Your task to perform on an android device: Open wifi settings Image 0: 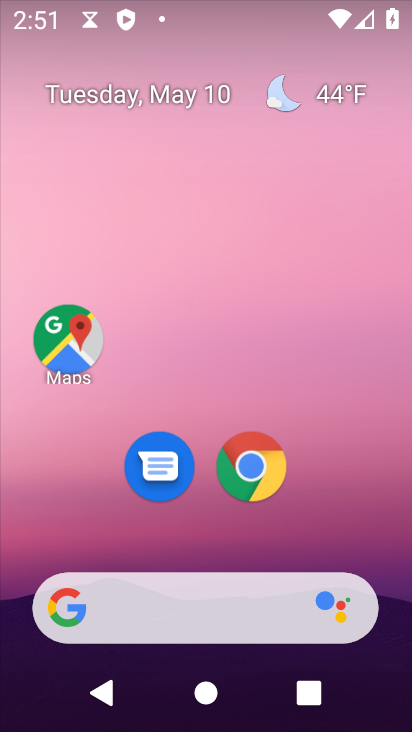
Step 0: drag from (335, 527) to (232, 13)
Your task to perform on an android device: Open wifi settings Image 1: 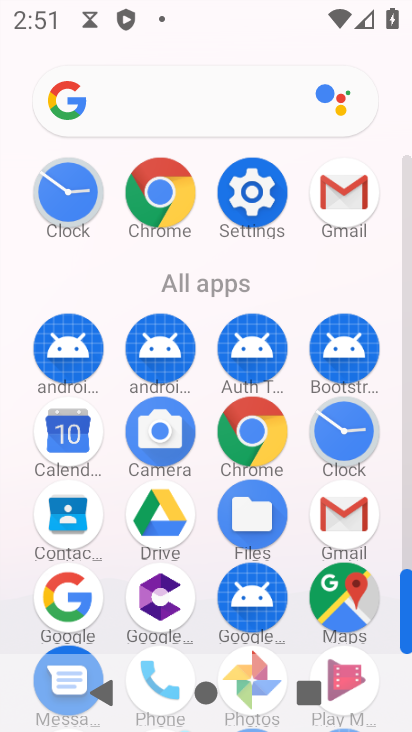
Step 1: click (249, 188)
Your task to perform on an android device: Open wifi settings Image 2: 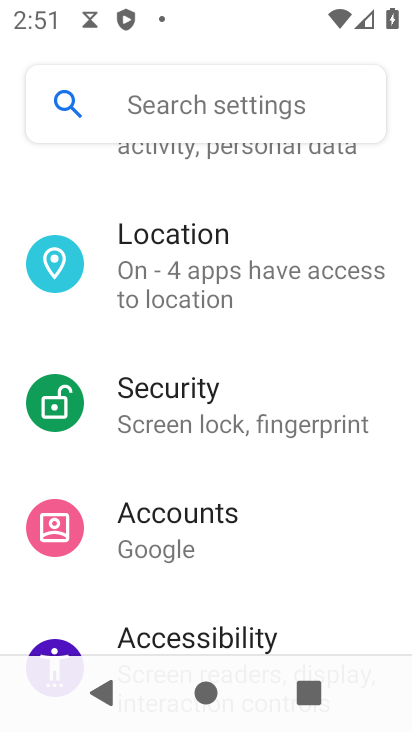
Step 2: drag from (249, 187) to (261, 339)
Your task to perform on an android device: Open wifi settings Image 3: 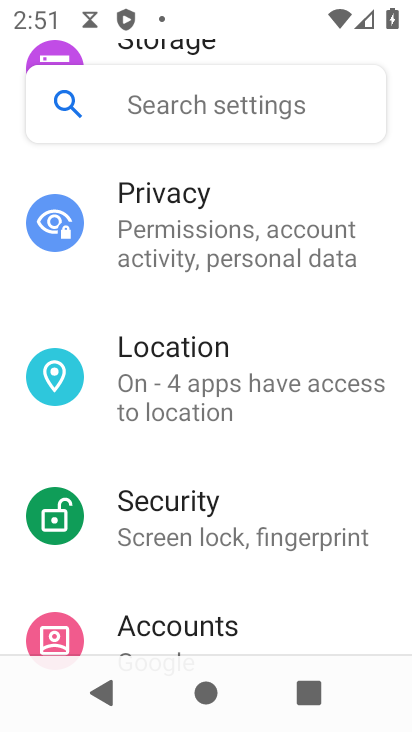
Step 3: drag from (239, 184) to (285, 381)
Your task to perform on an android device: Open wifi settings Image 4: 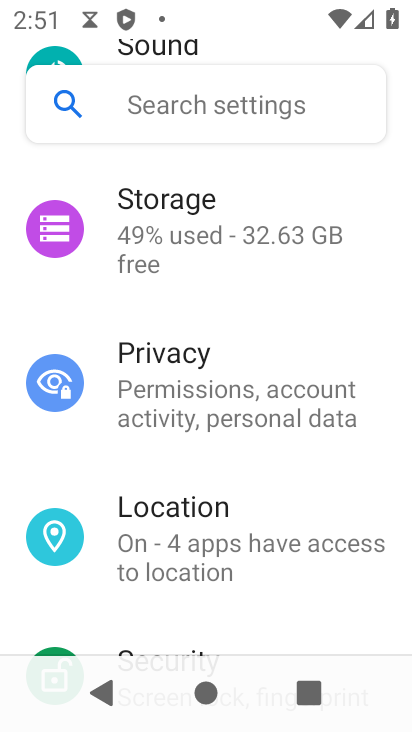
Step 4: drag from (225, 271) to (235, 466)
Your task to perform on an android device: Open wifi settings Image 5: 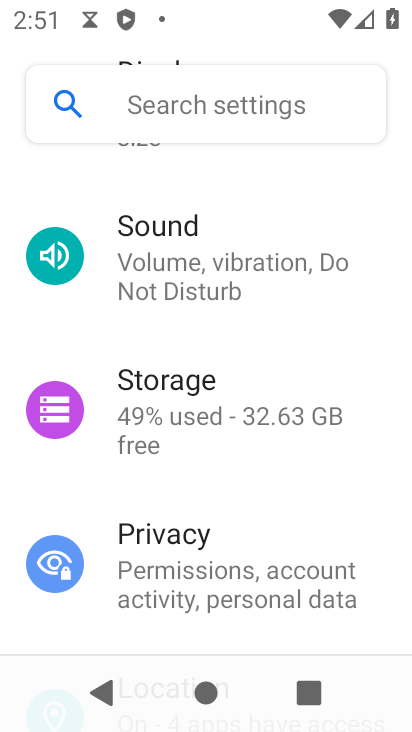
Step 5: drag from (228, 318) to (239, 489)
Your task to perform on an android device: Open wifi settings Image 6: 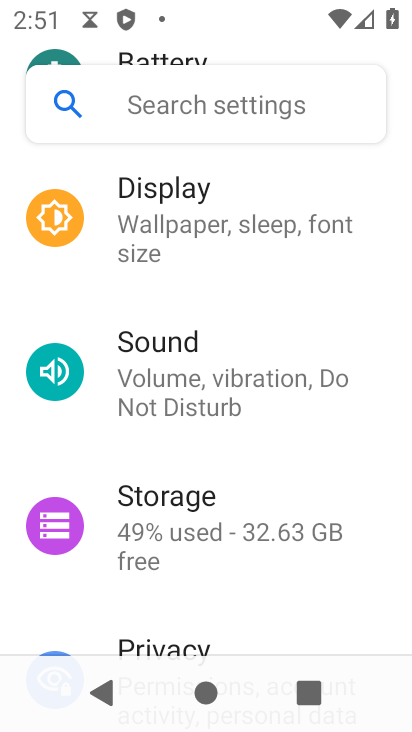
Step 6: drag from (236, 299) to (247, 448)
Your task to perform on an android device: Open wifi settings Image 7: 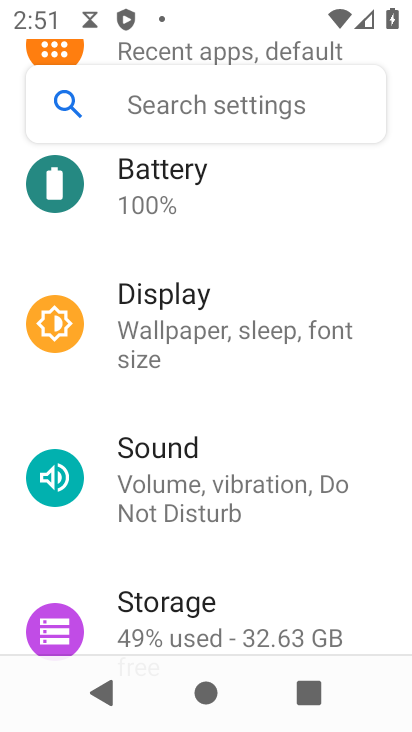
Step 7: drag from (247, 252) to (256, 465)
Your task to perform on an android device: Open wifi settings Image 8: 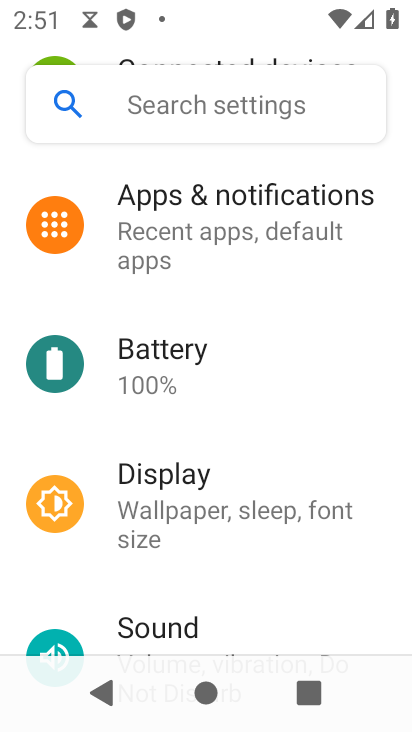
Step 8: drag from (223, 295) to (258, 472)
Your task to perform on an android device: Open wifi settings Image 9: 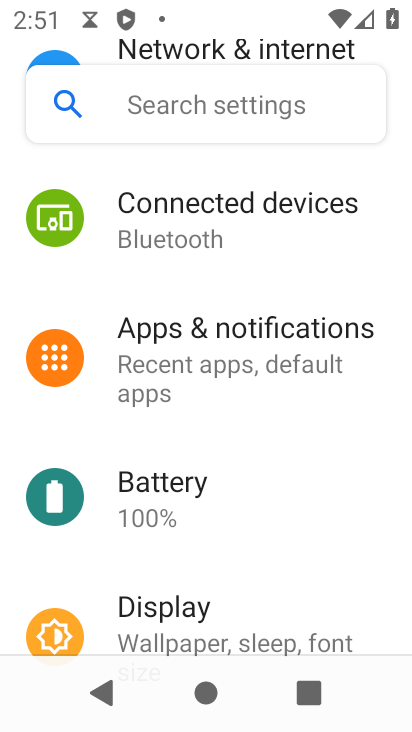
Step 9: drag from (226, 271) to (260, 483)
Your task to perform on an android device: Open wifi settings Image 10: 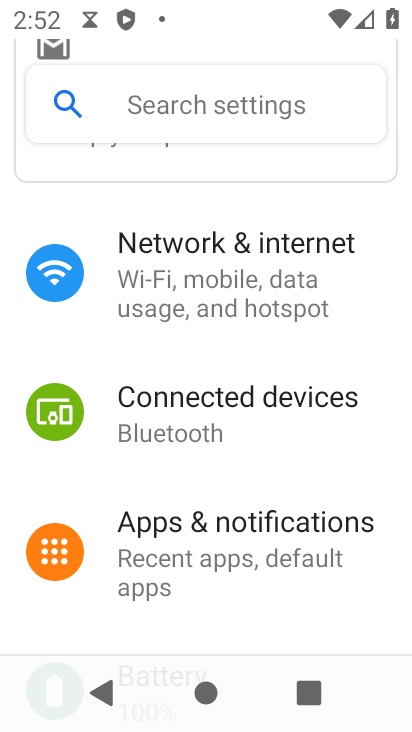
Step 10: click (190, 245)
Your task to perform on an android device: Open wifi settings Image 11: 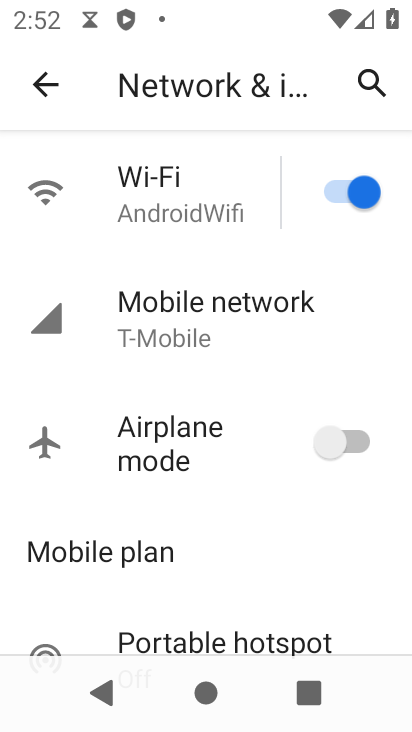
Step 11: click (142, 172)
Your task to perform on an android device: Open wifi settings Image 12: 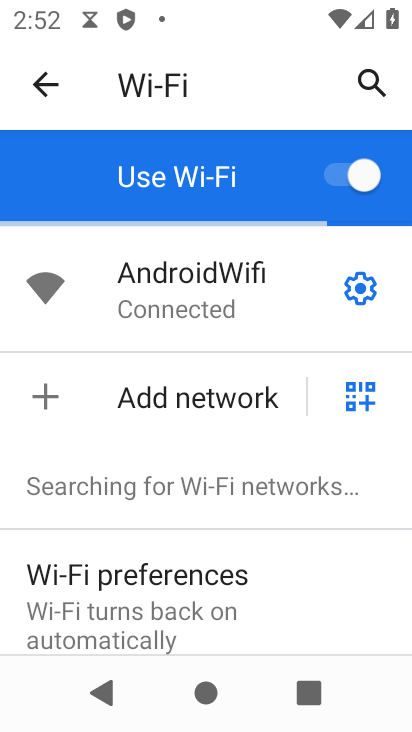
Step 12: click (361, 287)
Your task to perform on an android device: Open wifi settings Image 13: 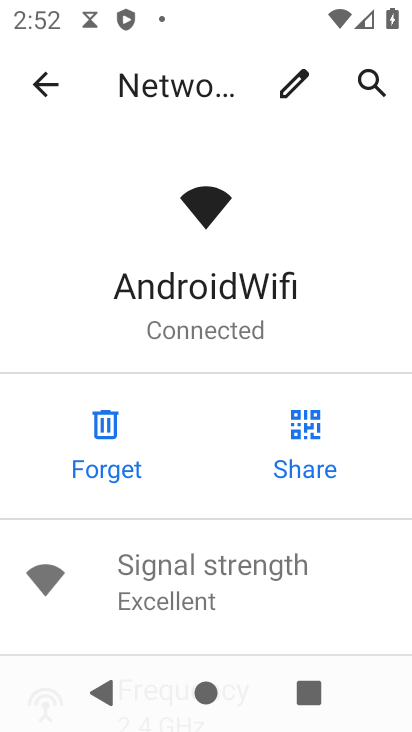
Step 13: task complete